Your task to perform on an android device: turn on airplane mode Image 0: 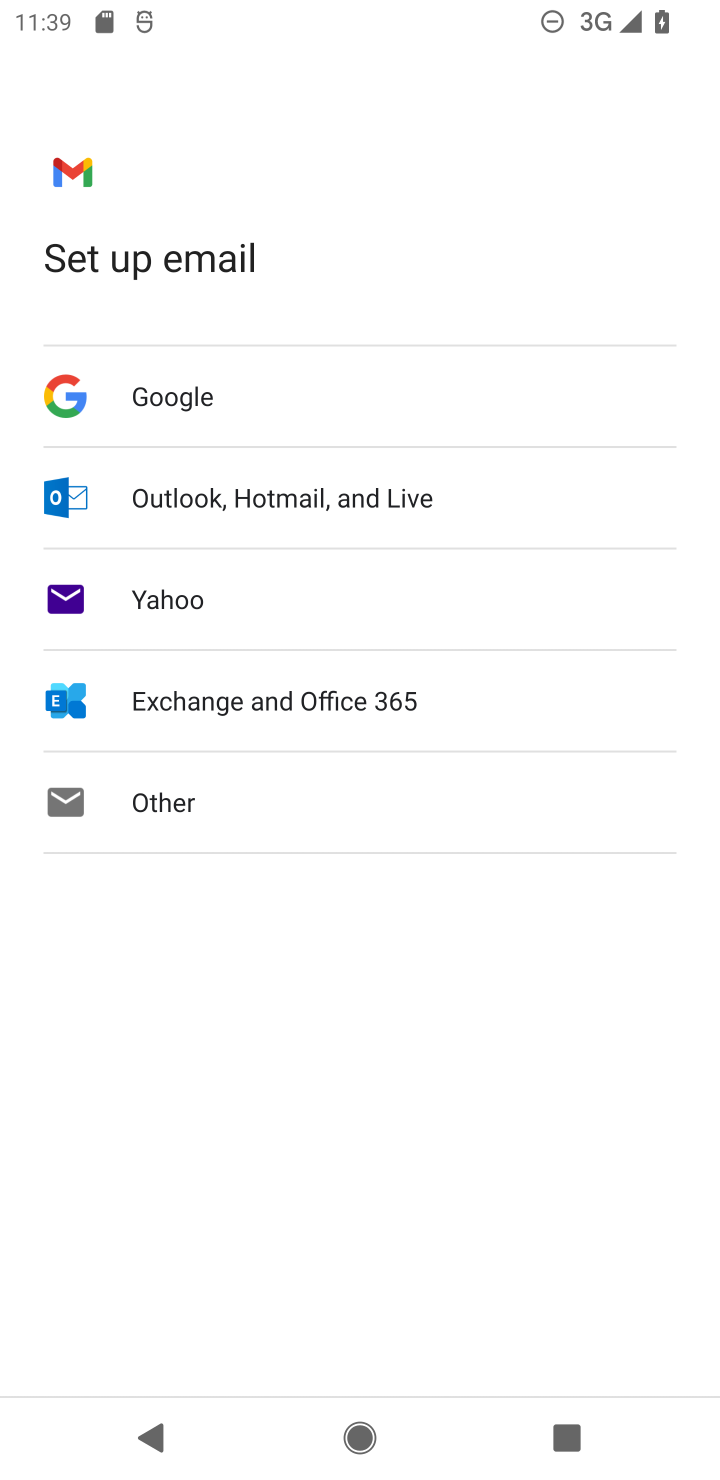
Step 0: press home button
Your task to perform on an android device: turn on airplane mode Image 1: 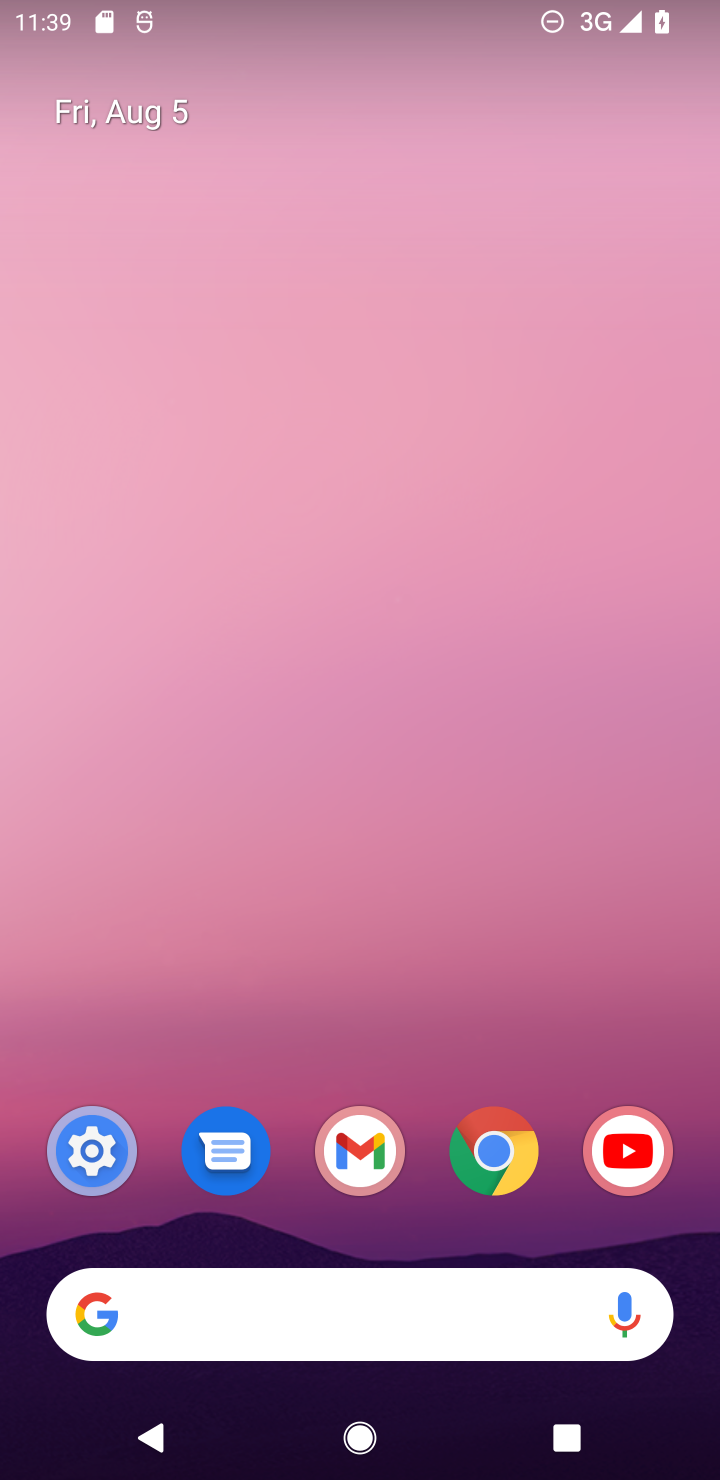
Step 1: click (90, 1143)
Your task to perform on an android device: turn on airplane mode Image 2: 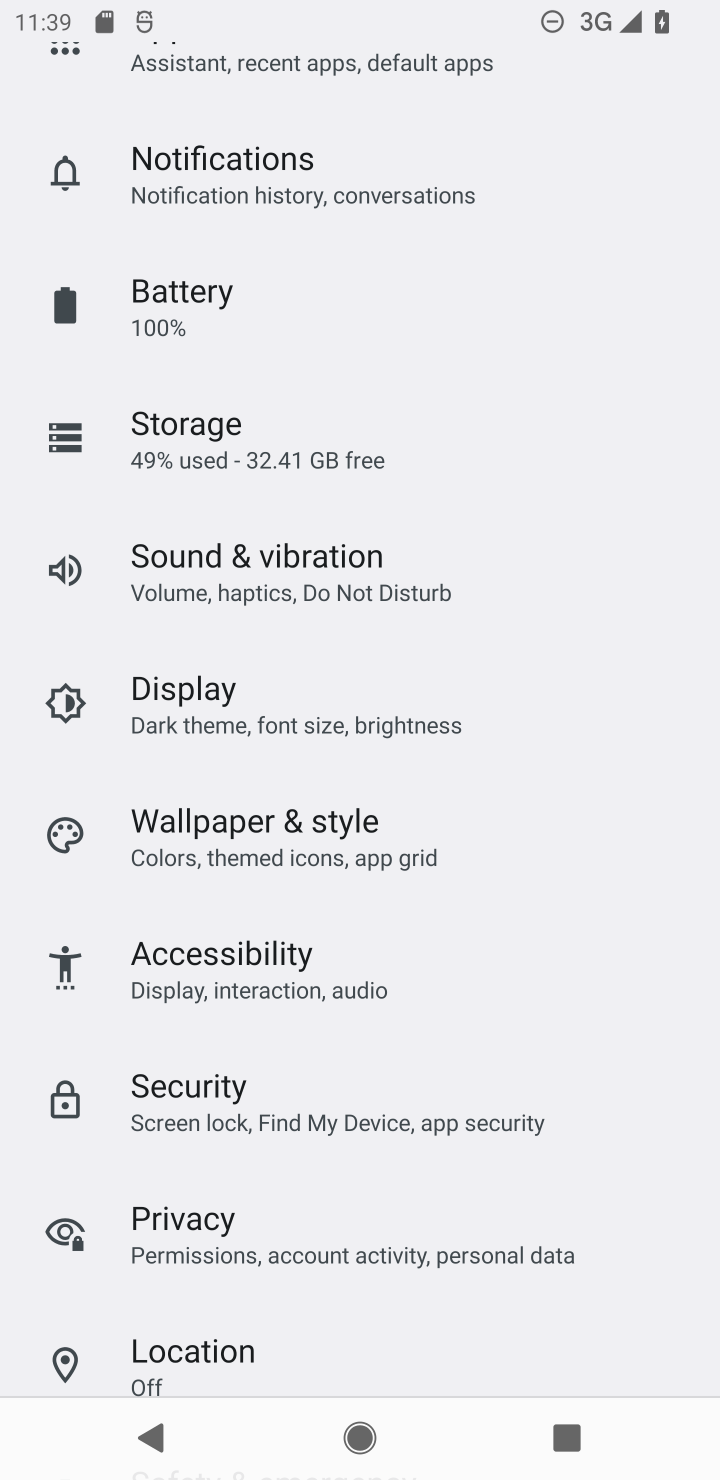
Step 2: drag from (326, 337) to (312, 1024)
Your task to perform on an android device: turn on airplane mode Image 3: 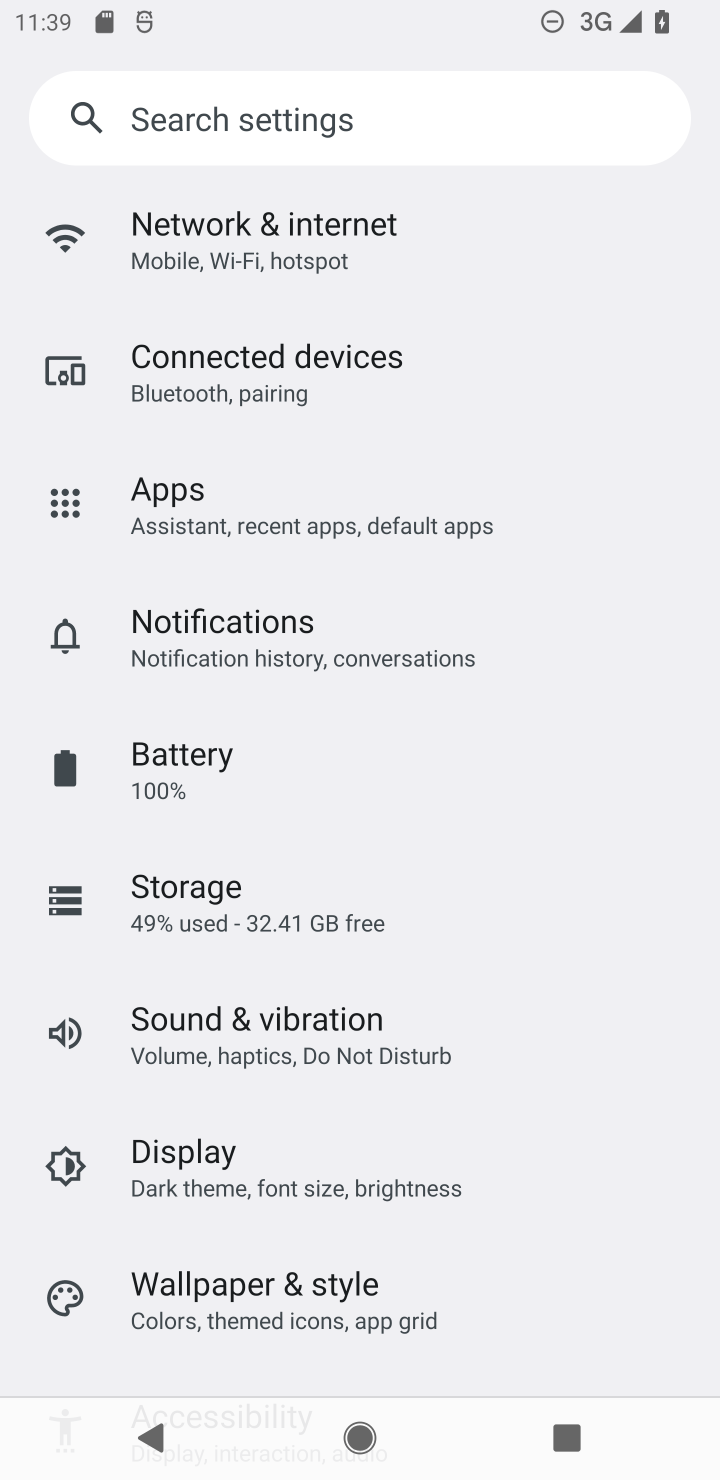
Step 3: click (228, 241)
Your task to perform on an android device: turn on airplane mode Image 4: 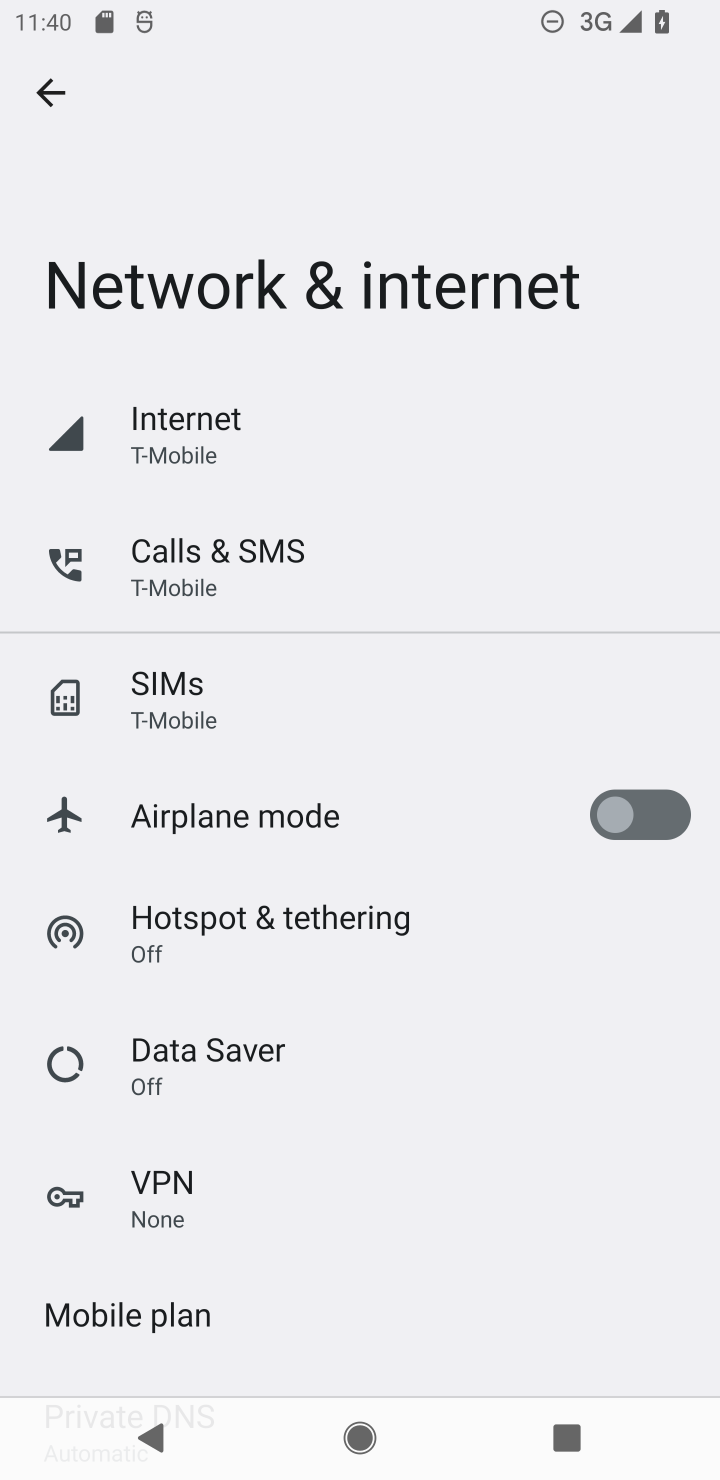
Step 4: click (683, 811)
Your task to perform on an android device: turn on airplane mode Image 5: 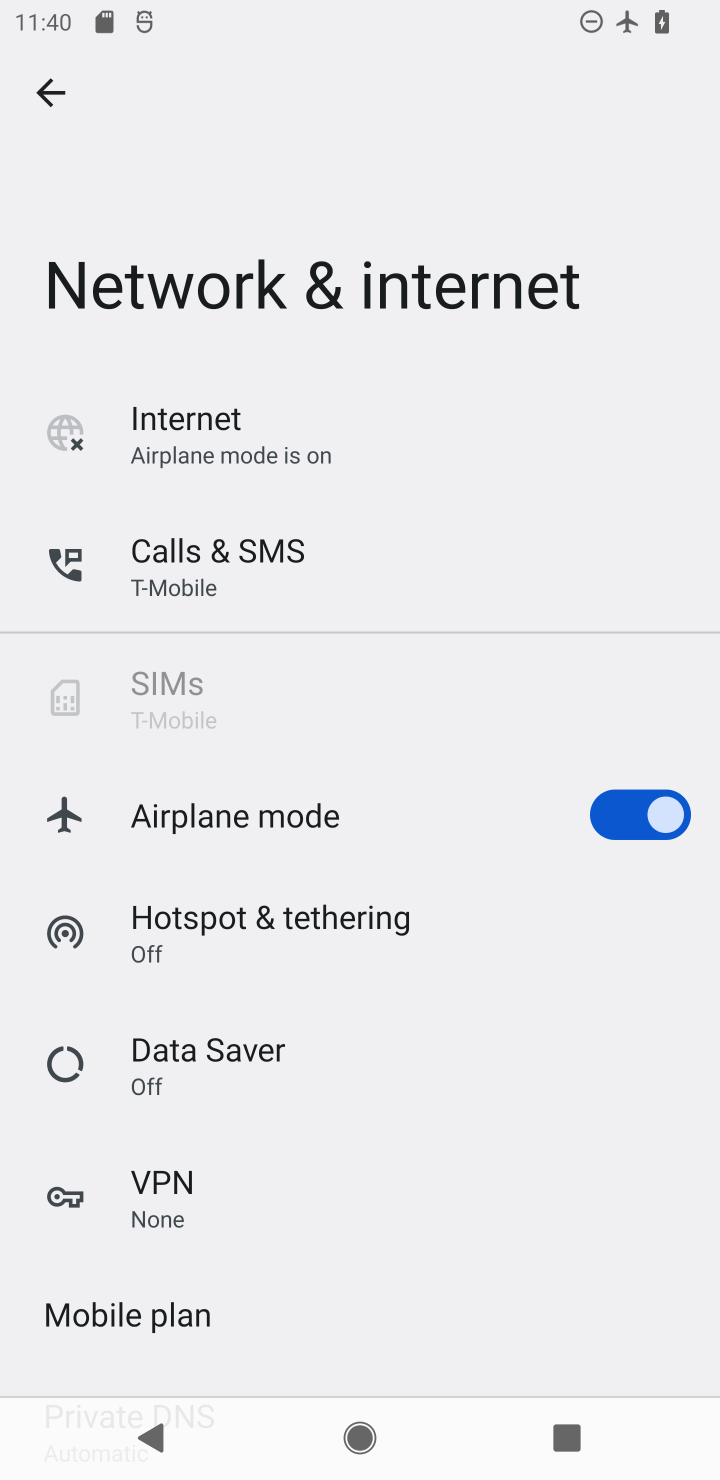
Step 5: task complete